Your task to perform on an android device: open a bookmark in the chrome app Image 0: 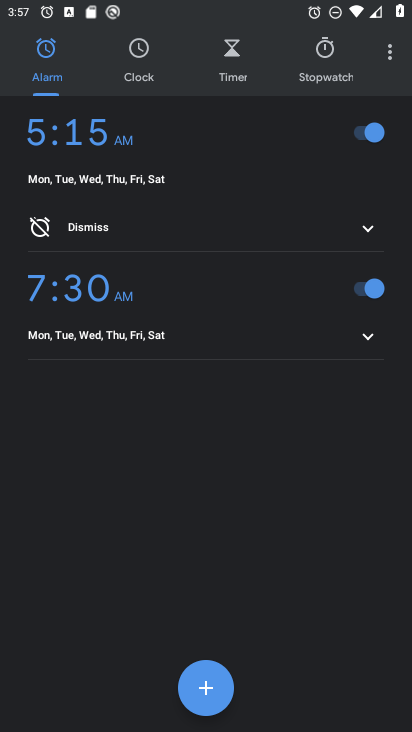
Step 0: press home button
Your task to perform on an android device: open a bookmark in the chrome app Image 1: 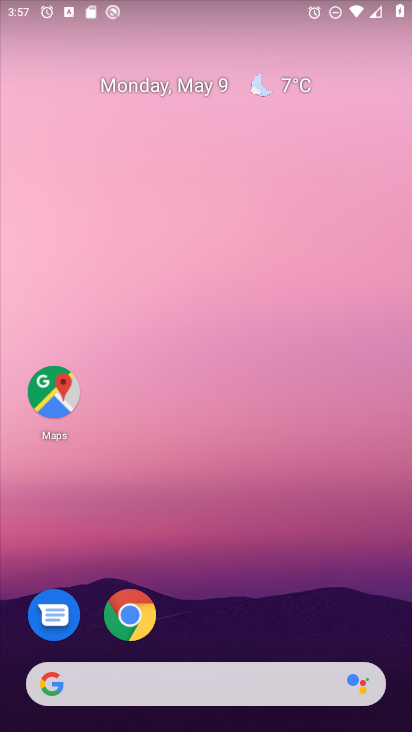
Step 1: click (131, 612)
Your task to perform on an android device: open a bookmark in the chrome app Image 2: 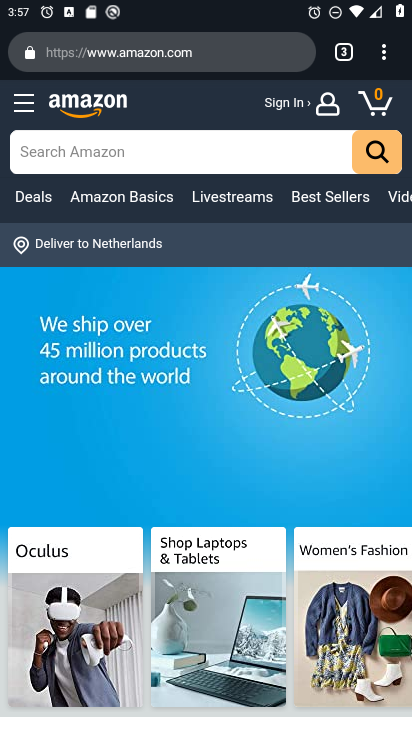
Step 2: click (382, 52)
Your task to perform on an android device: open a bookmark in the chrome app Image 3: 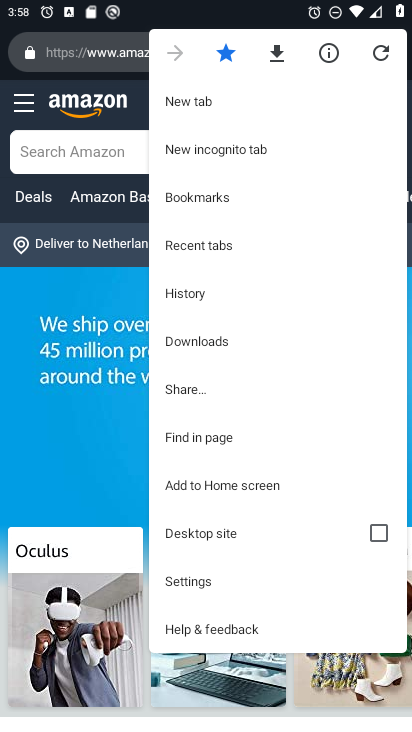
Step 3: click (194, 191)
Your task to perform on an android device: open a bookmark in the chrome app Image 4: 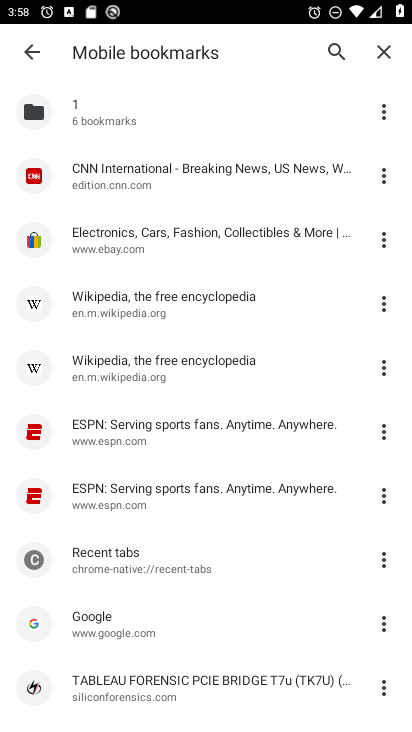
Step 4: click (83, 112)
Your task to perform on an android device: open a bookmark in the chrome app Image 5: 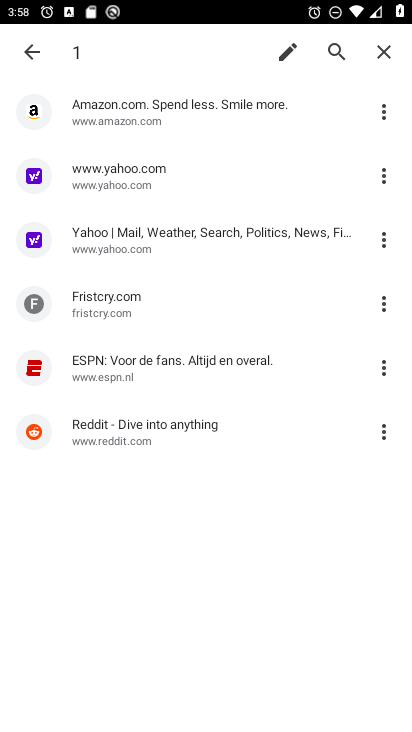
Step 5: task complete